Your task to perform on an android device: set an alarm Image 0: 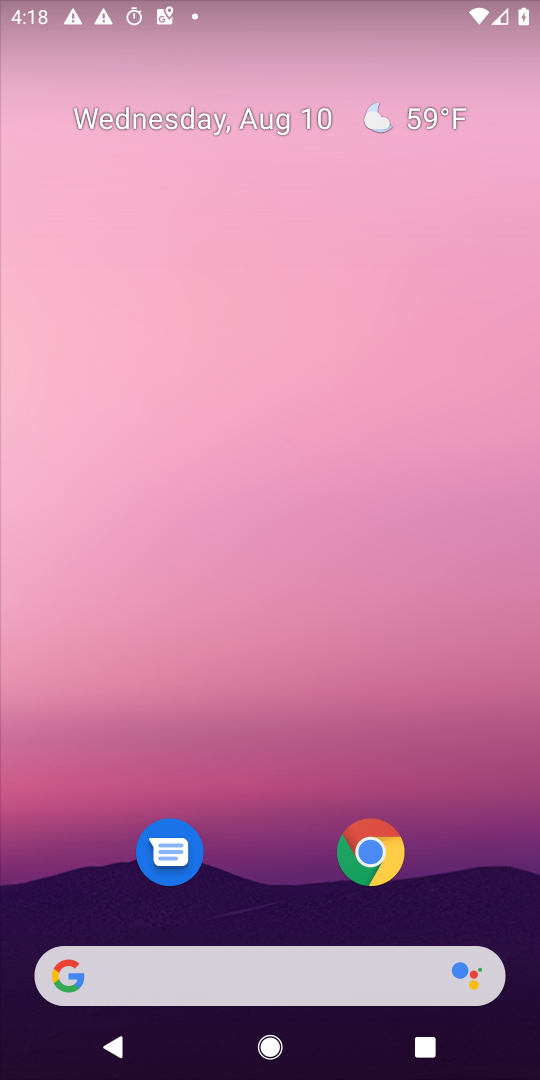
Step 0: drag from (272, 814) to (171, 185)
Your task to perform on an android device: set an alarm Image 1: 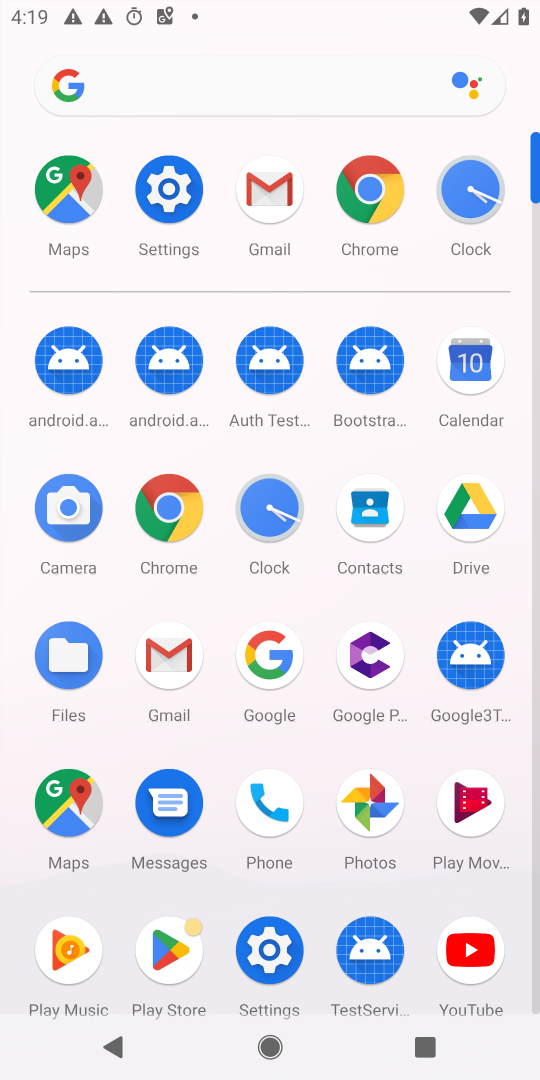
Step 1: click (257, 520)
Your task to perform on an android device: set an alarm Image 2: 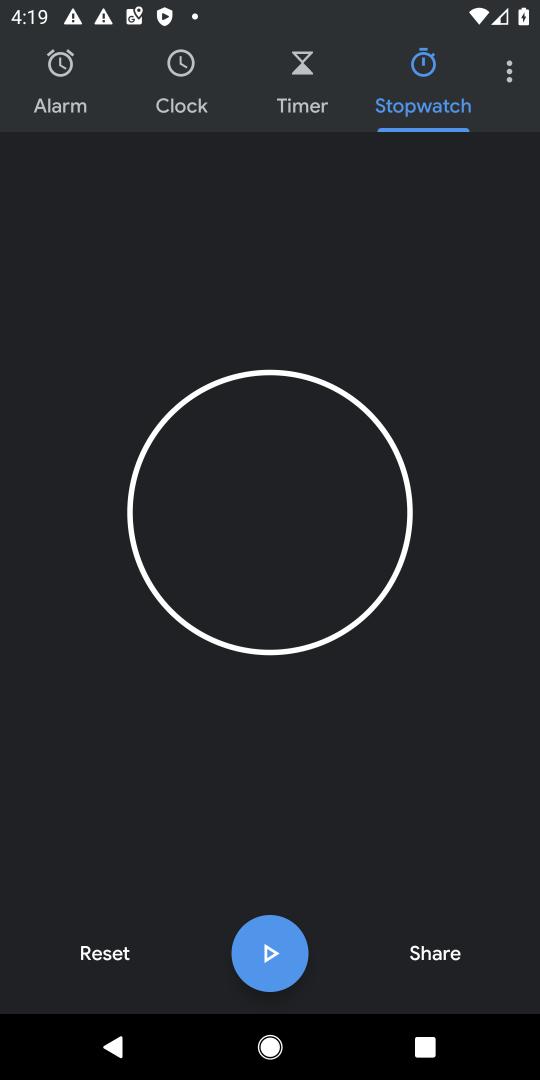
Step 2: click (72, 110)
Your task to perform on an android device: set an alarm Image 3: 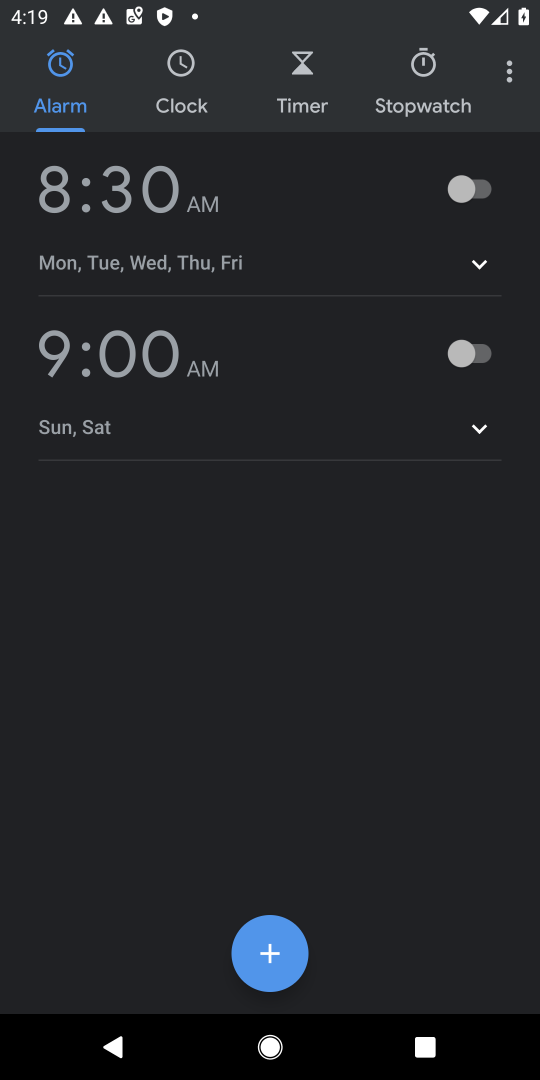
Step 3: click (281, 973)
Your task to perform on an android device: set an alarm Image 4: 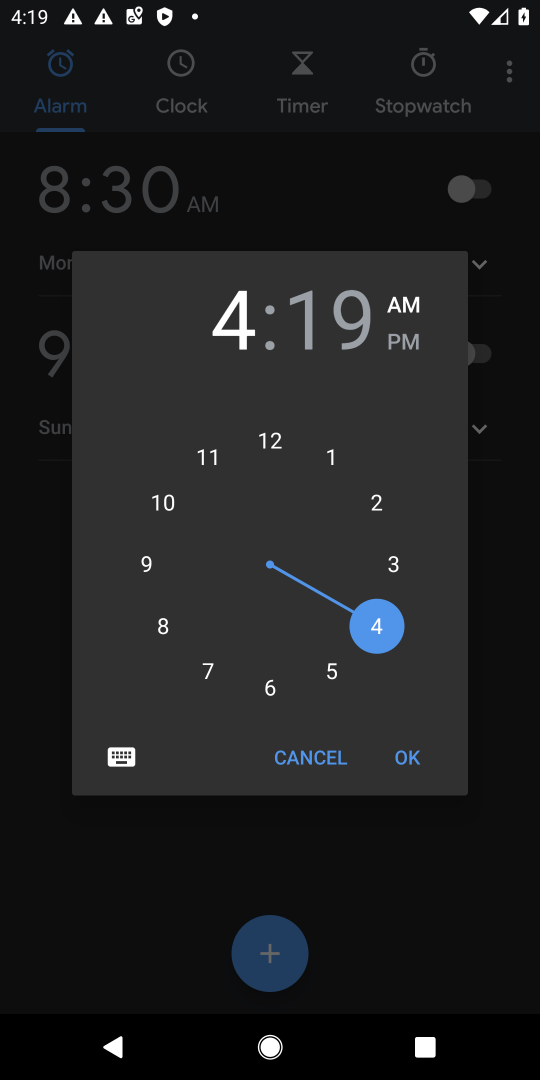
Step 4: click (408, 753)
Your task to perform on an android device: set an alarm Image 5: 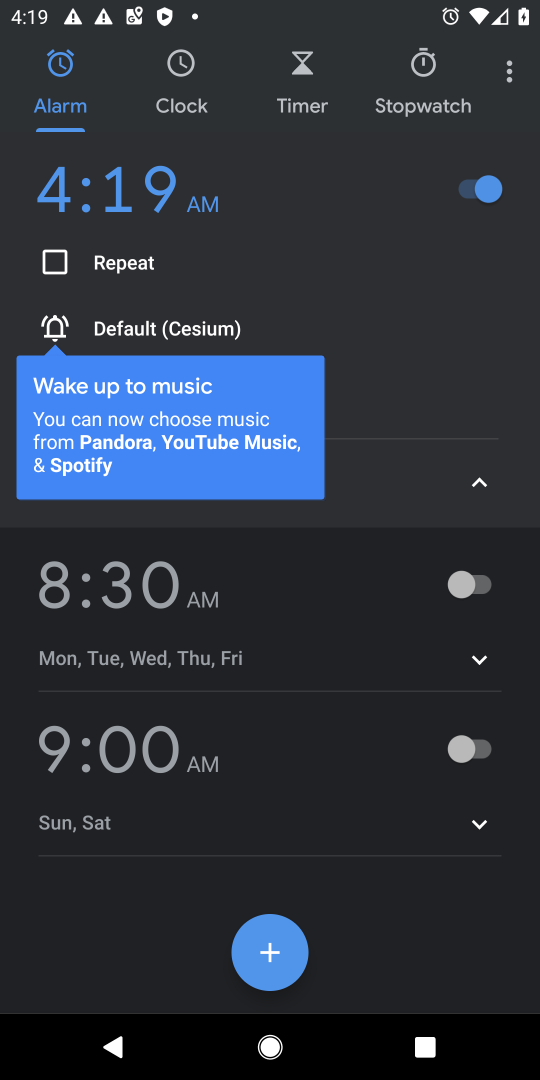
Step 5: task complete